Your task to perform on an android device: turn off wifi Image 0: 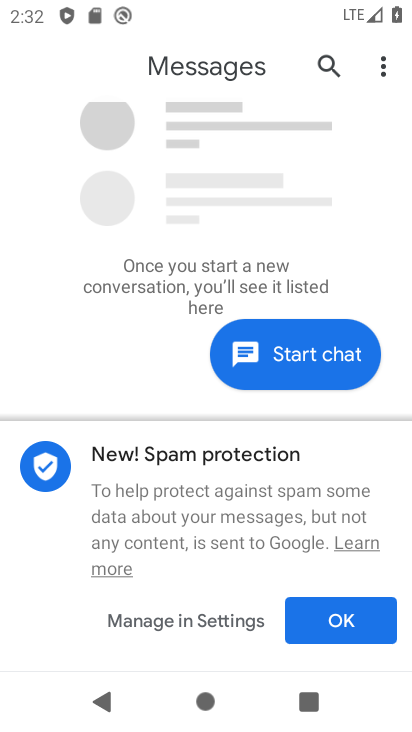
Step 0: press home button
Your task to perform on an android device: turn off wifi Image 1: 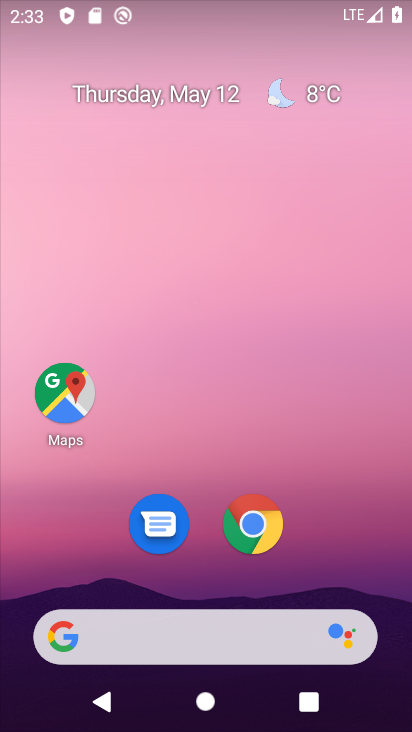
Step 1: drag from (180, 444) to (234, 38)
Your task to perform on an android device: turn off wifi Image 2: 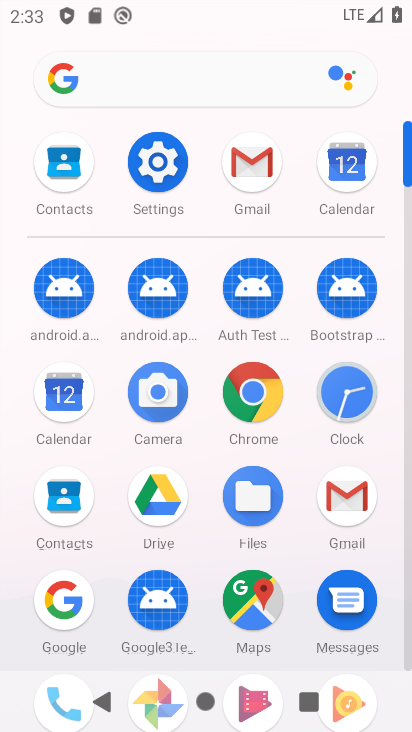
Step 2: click (146, 166)
Your task to perform on an android device: turn off wifi Image 3: 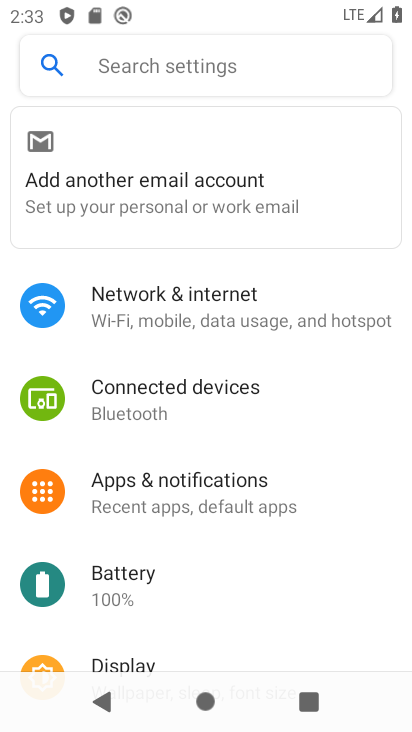
Step 3: click (157, 284)
Your task to perform on an android device: turn off wifi Image 4: 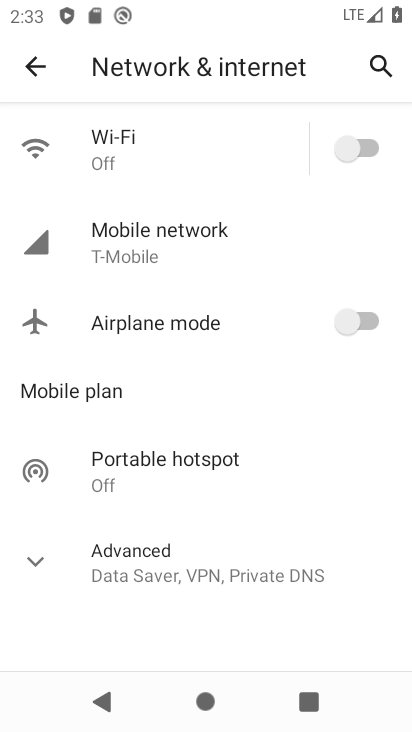
Step 4: task complete